Your task to perform on an android device: Open Android settings Image 0: 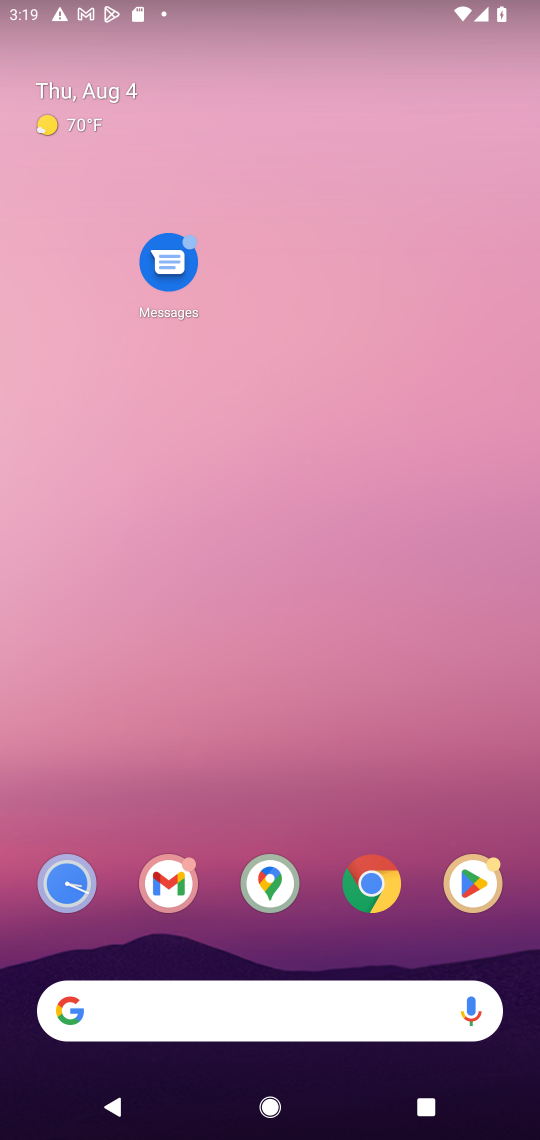
Step 0: drag from (288, 1068) to (199, 82)
Your task to perform on an android device: Open Android settings Image 1: 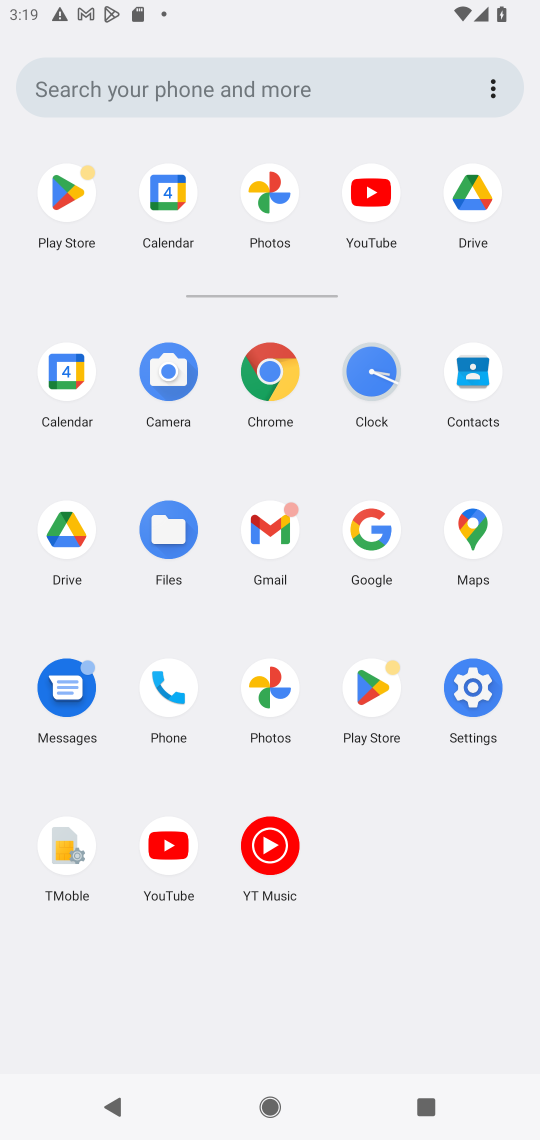
Step 1: click (465, 690)
Your task to perform on an android device: Open Android settings Image 2: 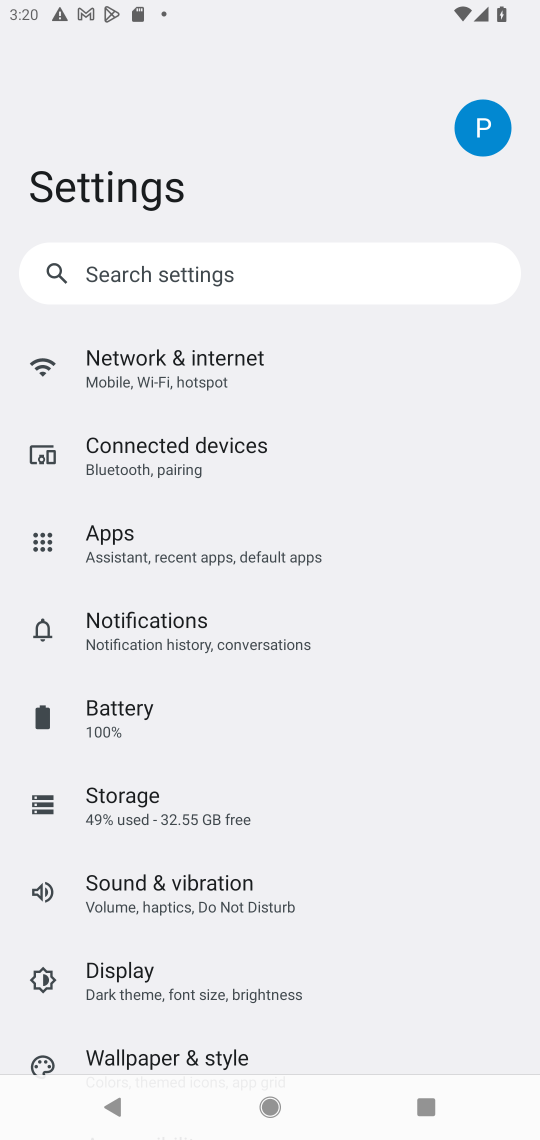
Step 2: task complete